Your task to perform on an android device: Check the news Image 0: 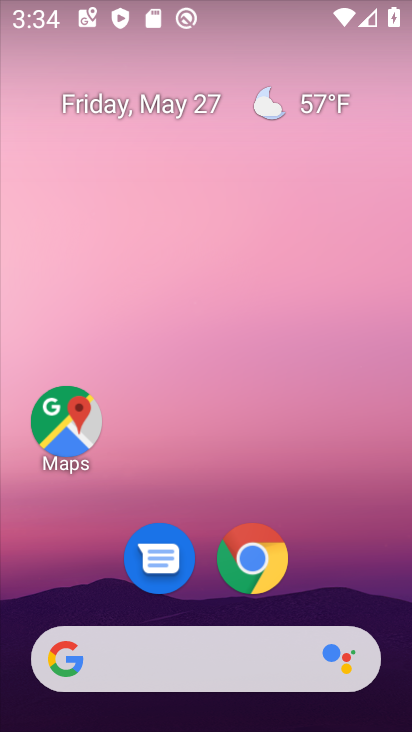
Step 0: drag from (407, 587) to (360, 89)
Your task to perform on an android device: Check the news Image 1: 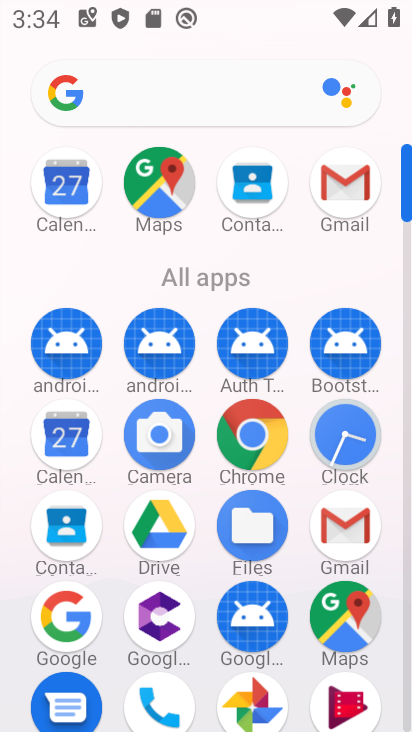
Step 1: click (145, 86)
Your task to perform on an android device: Check the news Image 2: 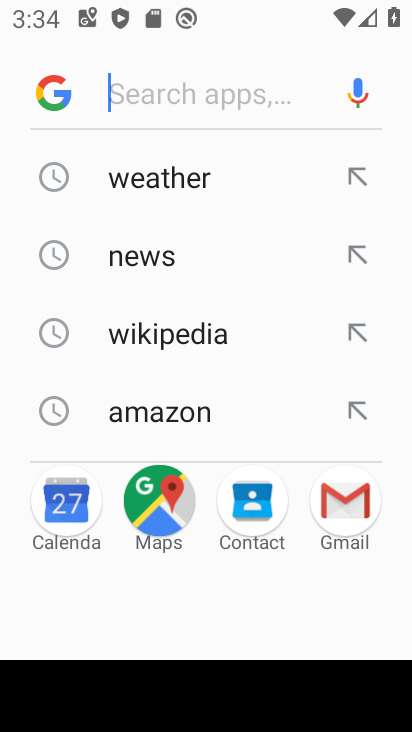
Step 2: click (233, 271)
Your task to perform on an android device: Check the news Image 3: 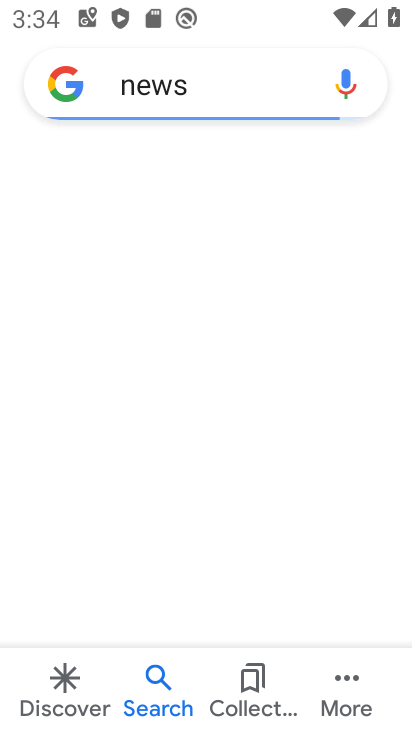
Step 3: task complete